Your task to perform on an android device: open device folders in google photos Image 0: 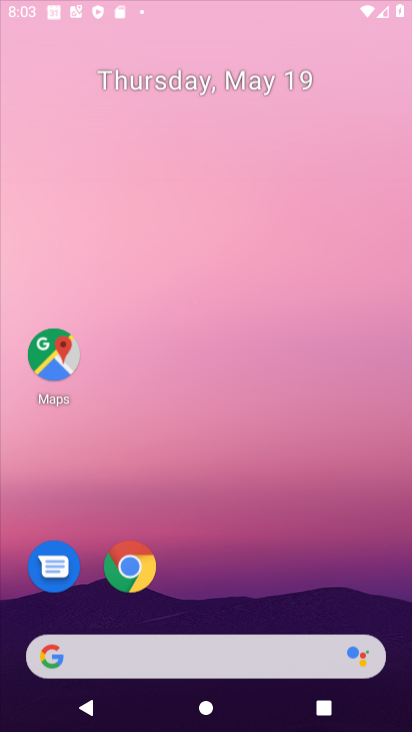
Step 0: drag from (225, 457) to (221, 226)
Your task to perform on an android device: open device folders in google photos Image 1: 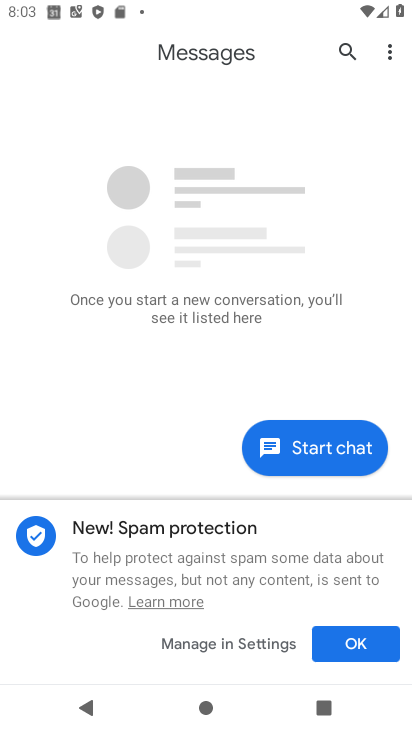
Step 1: press home button
Your task to perform on an android device: open device folders in google photos Image 2: 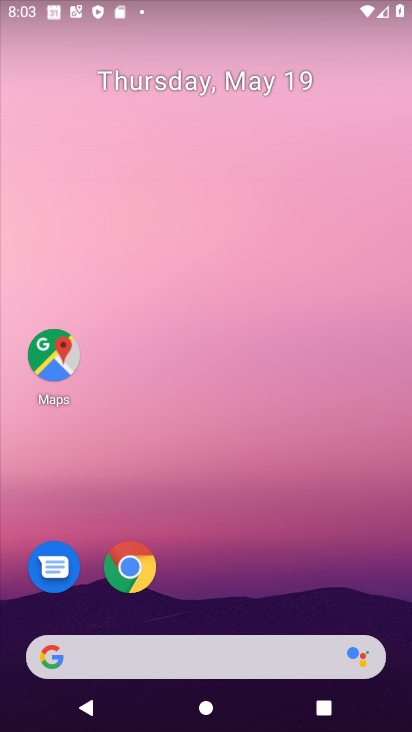
Step 2: drag from (198, 616) to (299, 62)
Your task to perform on an android device: open device folders in google photos Image 3: 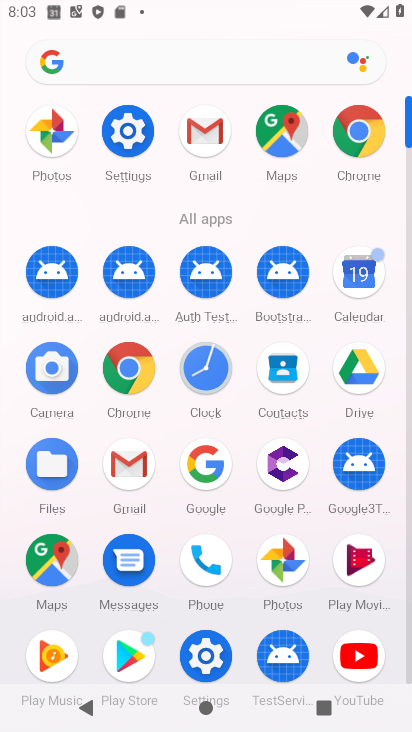
Step 3: click (61, 129)
Your task to perform on an android device: open device folders in google photos Image 4: 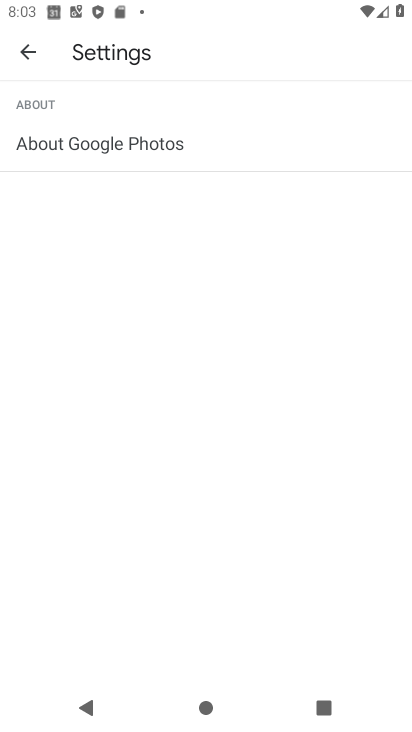
Step 4: click (28, 60)
Your task to perform on an android device: open device folders in google photos Image 5: 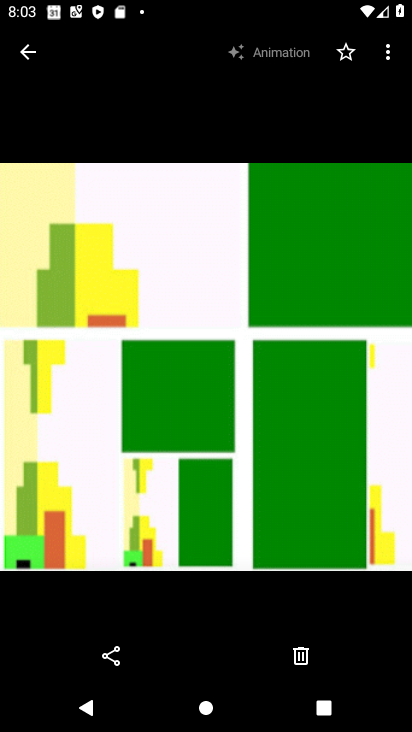
Step 5: click (28, 60)
Your task to perform on an android device: open device folders in google photos Image 6: 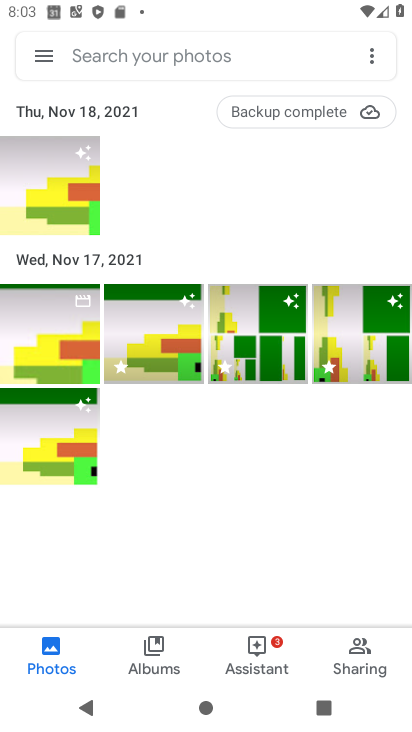
Step 6: click (39, 58)
Your task to perform on an android device: open device folders in google photos Image 7: 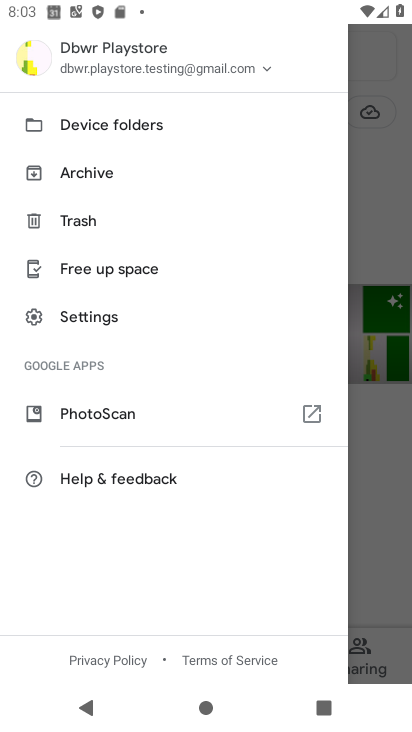
Step 7: click (72, 110)
Your task to perform on an android device: open device folders in google photos Image 8: 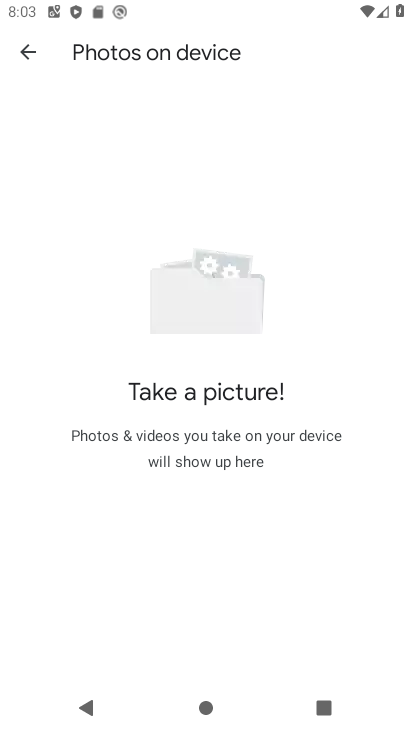
Step 8: task complete